Your task to perform on an android device: What's the weather? Image 0: 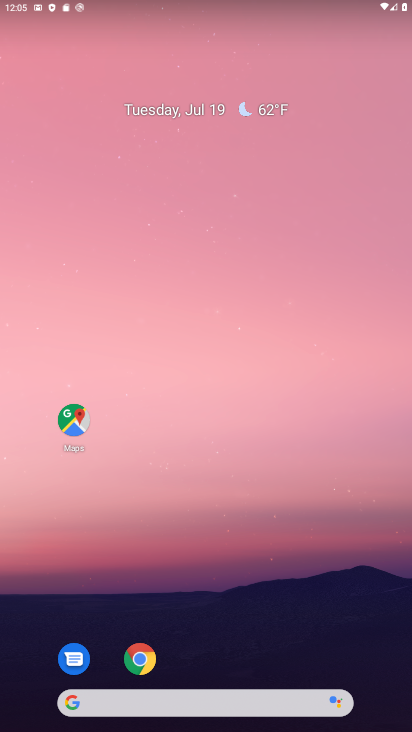
Step 0: drag from (215, 689) to (215, 242)
Your task to perform on an android device: What's the weather? Image 1: 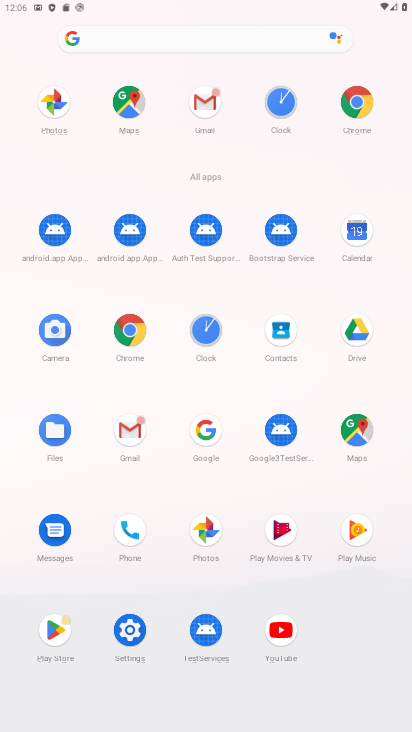
Step 1: drag from (152, 470) to (155, 275)
Your task to perform on an android device: What's the weather? Image 2: 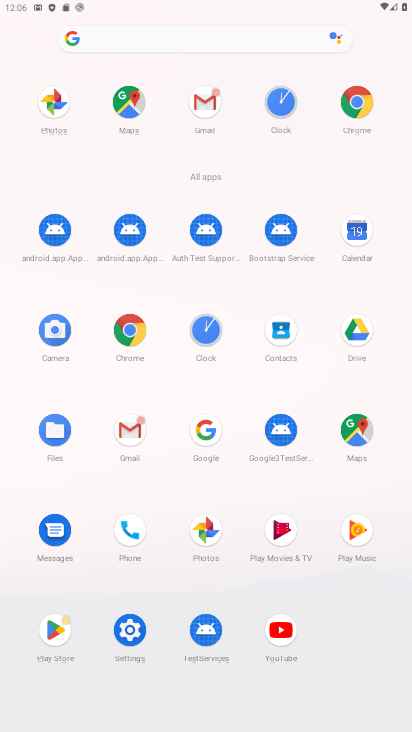
Step 2: click (208, 442)
Your task to perform on an android device: What's the weather? Image 3: 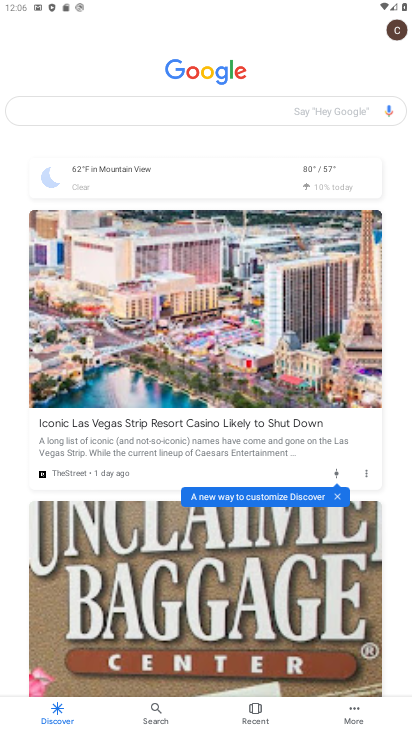
Step 3: click (169, 113)
Your task to perform on an android device: What's the weather? Image 4: 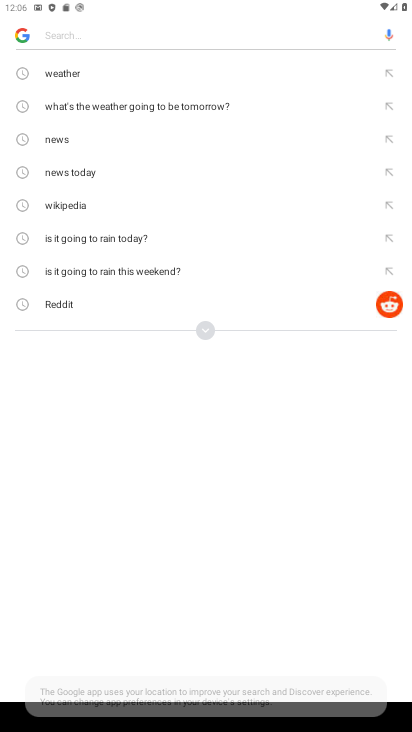
Step 4: click (83, 76)
Your task to perform on an android device: What's the weather? Image 5: 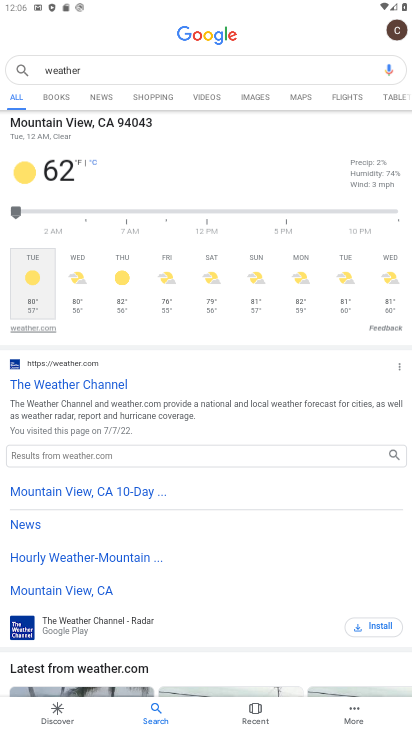
Step 5: task complete